Your task to perform on an android device: set an alarm Image 0: 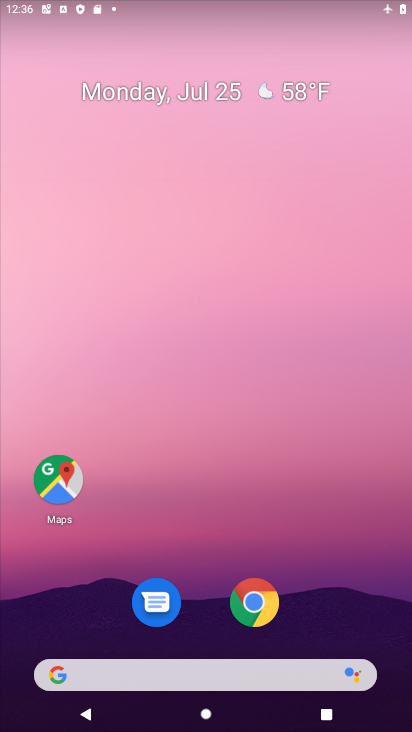
Step 0: drag from (205, 595) to (208, 140)
Your task to perform on an android device: set an alarm Image 1: 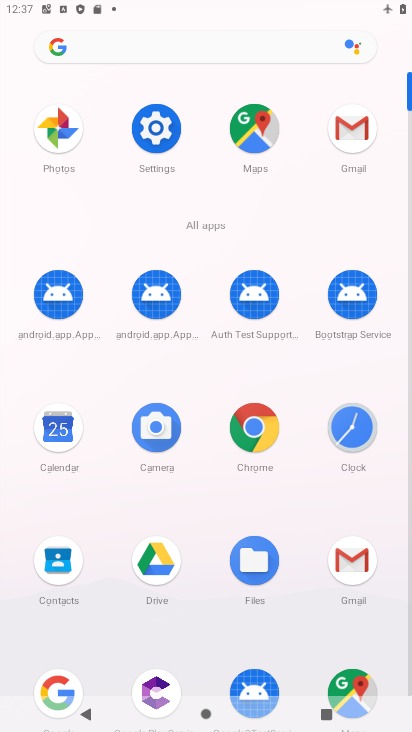
Step 1: click (342, 428)
Your task to perform on an android device: set an alarm Image 2: 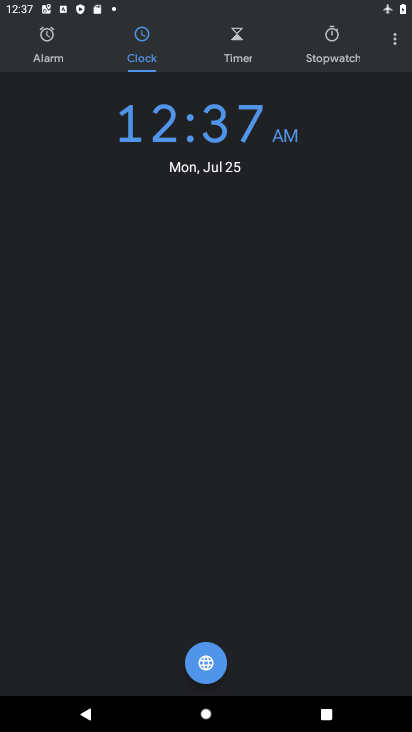
Step 2: click (53, 49)
Your task to perform on an android device: set an alarm Image 3: 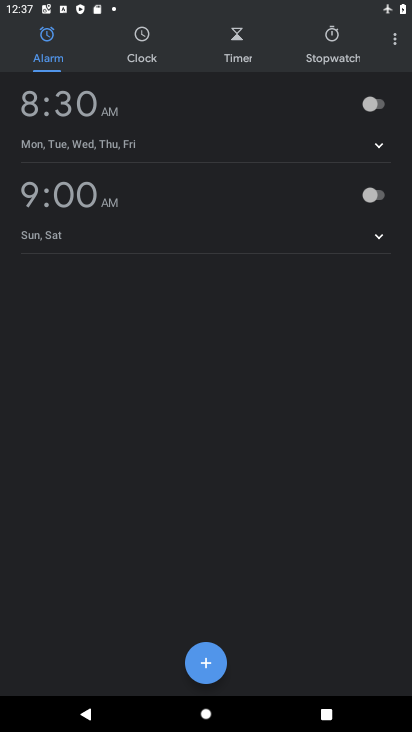
Step 3: click (384, 115)
Your task to perform on an android device: set an alarm Image 4: 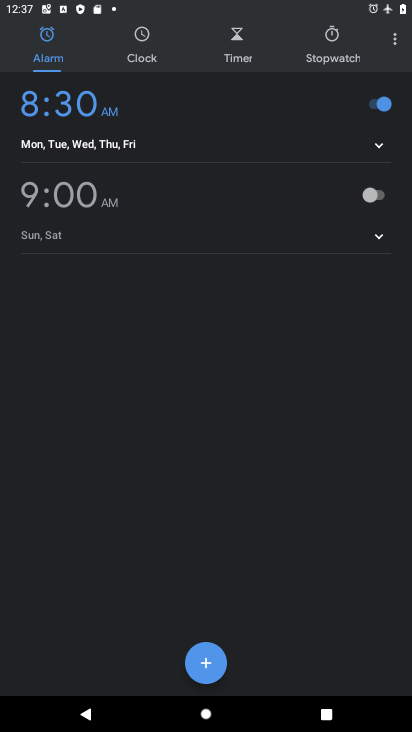
Step 4: task complete